Your task to perform on an android device: Add "usb-b" to the cart on amazon.com Image 0: 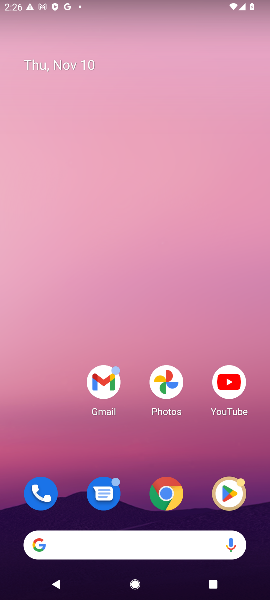
Step 0: drag from (168, 518) to (9, 308)
Your task to perform on an android device: Add "usb-b" to the cart on amazon.com Image 1: 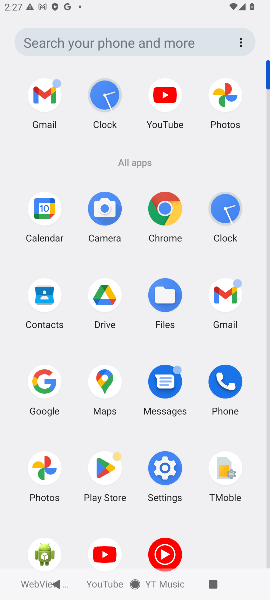
Step 1: click (49, 374)
Your task to perform on an android device: Add "usb-b" to the cart on amazon.com Image 2: 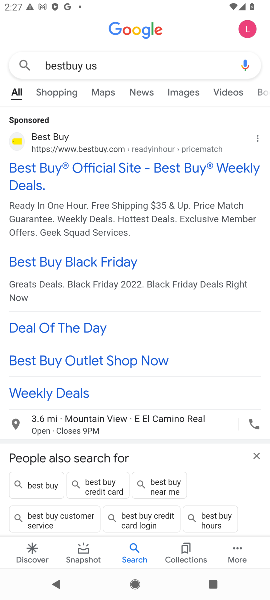
Step 2: click (128, 62)
Your task to perform on an android device: Add "usb-b" to the cart on amazon.com Image 3: 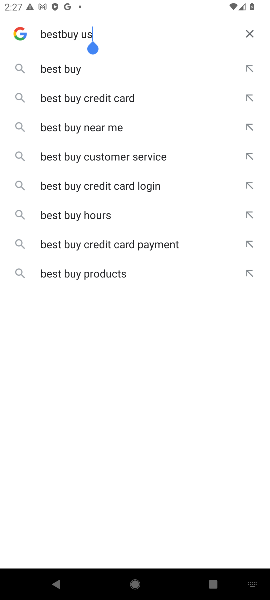
Step 3: click (249, 20)
Your task to perform on an android device: Add "usb-b" to the cart on amazon.com Image 4: 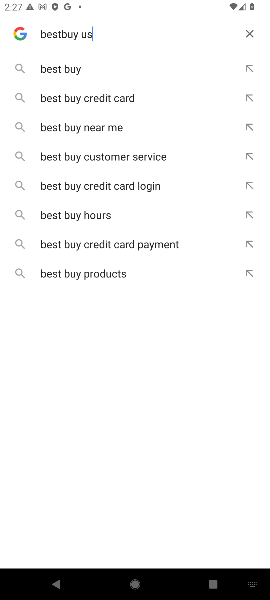
Step 4: click (249, 28)
Your task to perform on an android device: Add "usb-b" to the cart on amazon.com Image 5: 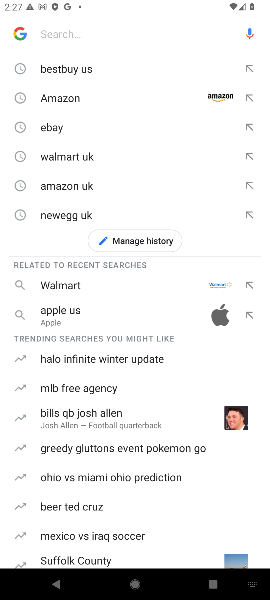
Step 5: click (86, 33)
Your task to perform on an android device: Add "usb-b" to the cart on amazon.com Image 6: 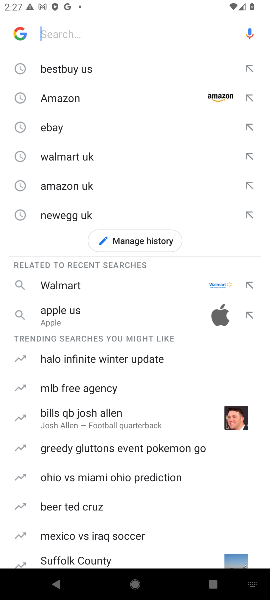
Step 6: type " amazon.com "
Your task to perform on an android device: Add "usb-b" to the cart on amazon.com Image 7: 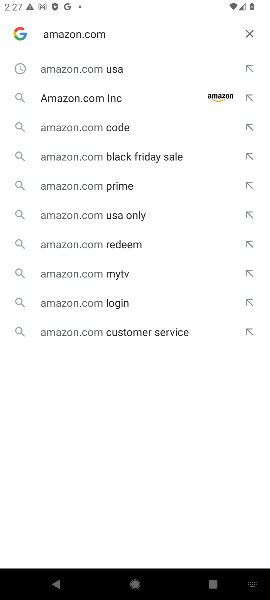
Step 7: click (116, 72)
Your task to perform on an android device: Add "usb-b" to the cart on amazon.com Image 8: 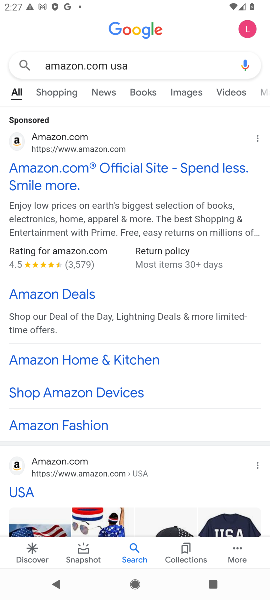
Step 8: click (20, 138)
Your task to perform on an android device: Add "usb-b" to the cart on amazon.com Image 9: 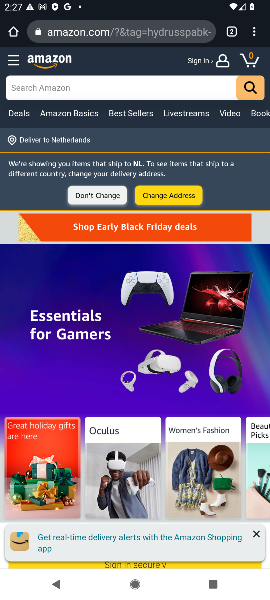
Step 9: click (130, 86)
Your task to perform on an android device: Add "usb-b" to the cart on amazon.com Image 10: 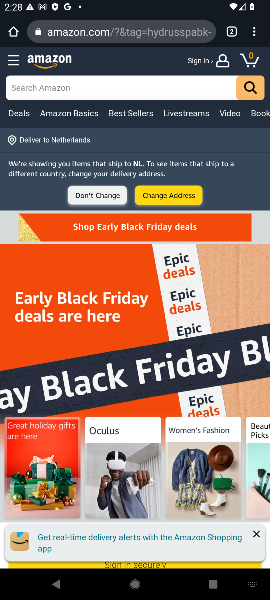
Step 10: type "usb"
Your task to perform on an android device: Add "usb-b" to the cart on amazon.com Image 11: 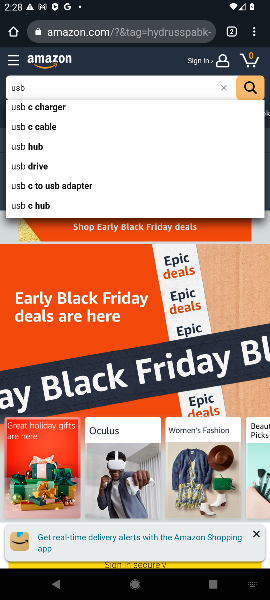
Step 11: click (42, 125)
Your task to perform on an android device: Add "usb-b" to the cart on amazon.com Image 12: 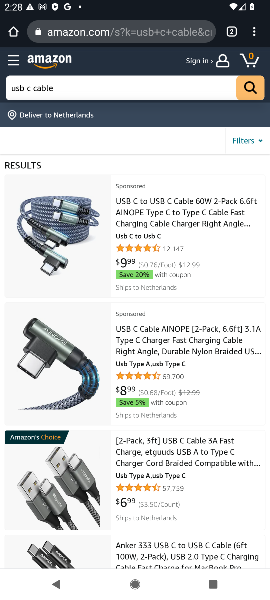
Step 12: click (161, 218)
Your task to perform on an android device: Add "usb-b" to the cart on amazon.com Image 13: 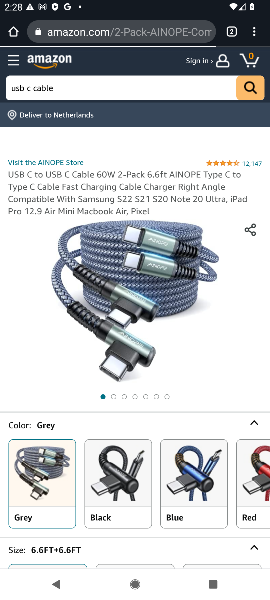
Step 13: drag from (126, 511) to (172, 115)
Your task to perform on an android device: Add "usb-b" to the cart on amazon.com Image 14: 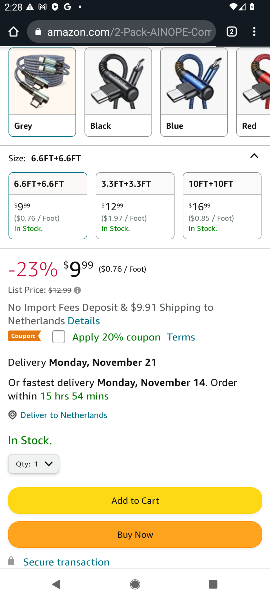
Step 14: click (119, 498)
Your task to perform on an android device: Add "usb-b" to the cart on amazon.com Image 15: 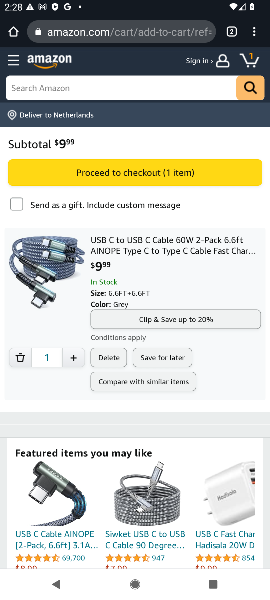
Step 15: task complete